Your task to perform on an android device: turn on sleep mode Image 0: 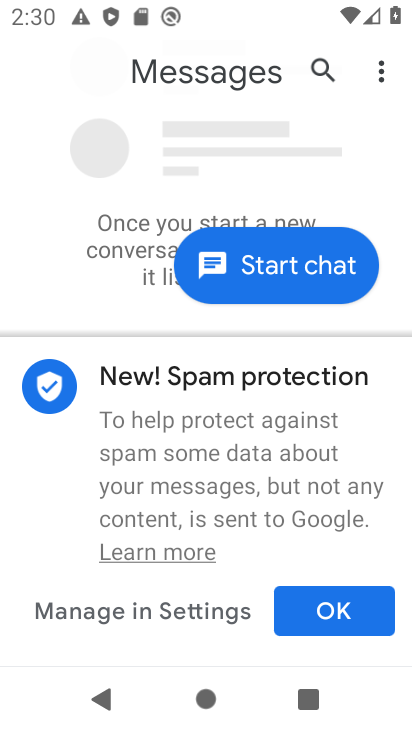
Step 0: press home button
Your task to perform on an android device: turn on sleep mode Image 1: 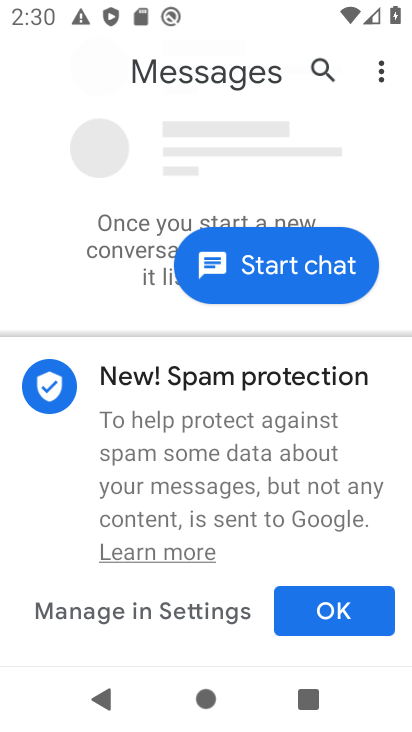
Step 1: press home button
Your task to perform on an android device: turn on sleep mode Image 2: 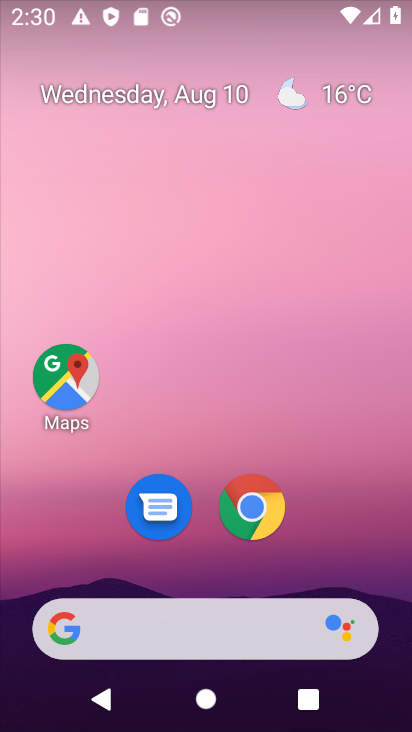
Step 2: drag from (357, 553) to (299, 29)
Your task to perform on an android device: turn on sleep mode Image 3: 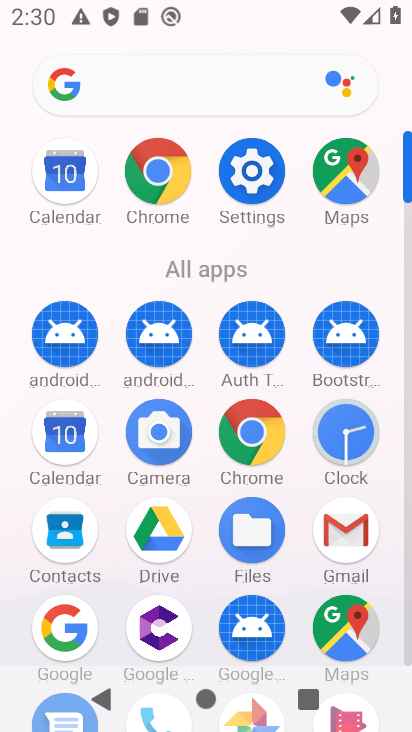
Step 3: click (260, 164)
Your task to perform on an android device: turn on sleep mode Image 4: 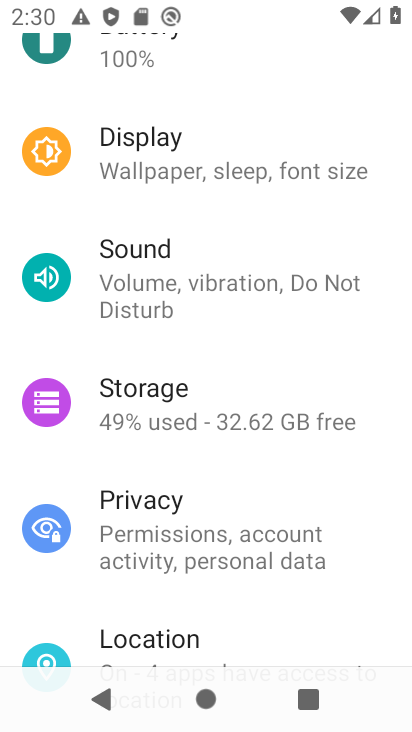
Step 4: click (210, 169)
Your task to perform on an android device: turn on sleep mode Image 5: 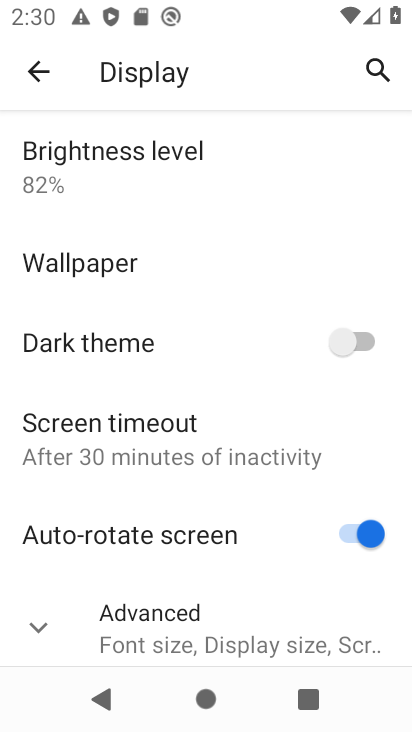
Step 5: click (181, 431)
Your task to perform on an android device: turn on sleep mode Image 6: 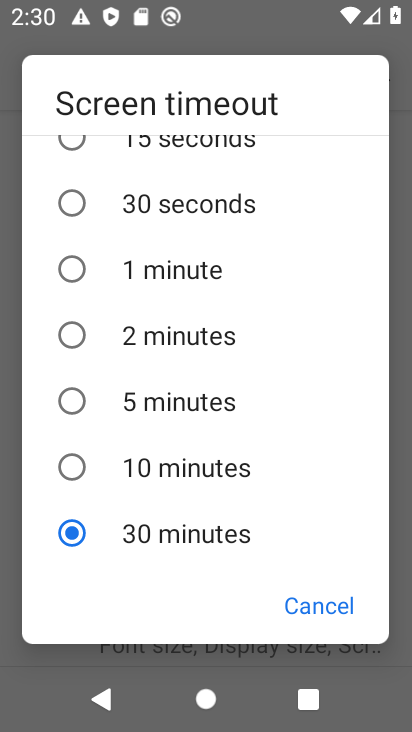
Step 6: task complete